Your task to perform on an android device: set the timer Image 0: 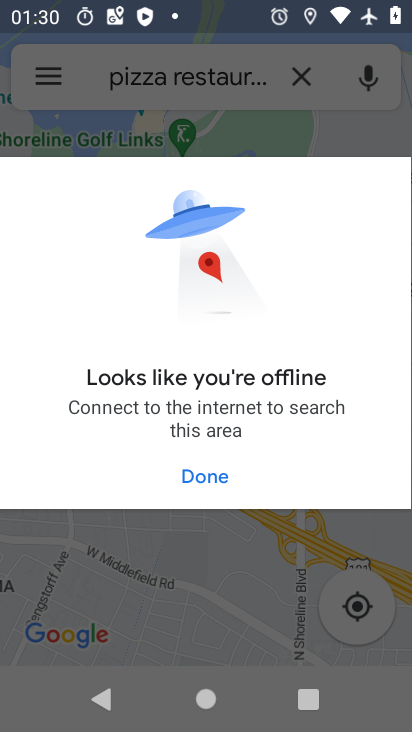
Step 0: press home button
Your task to perform on an android device: set the timer Image 1: 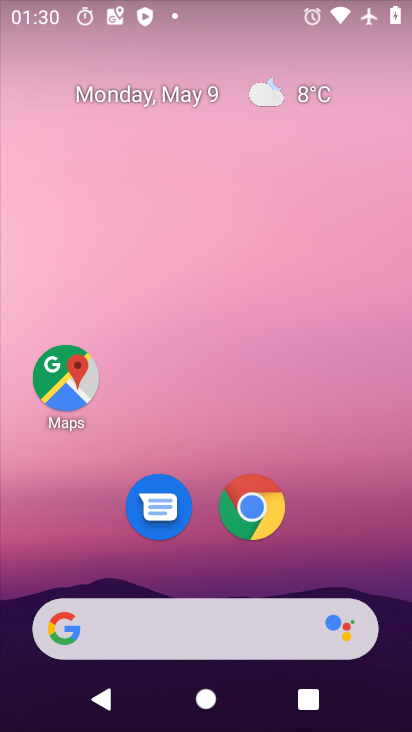
Step 1: drag from (231, 721) to (233, 235)
Your task to perform on an android device: set the timer Image 2: 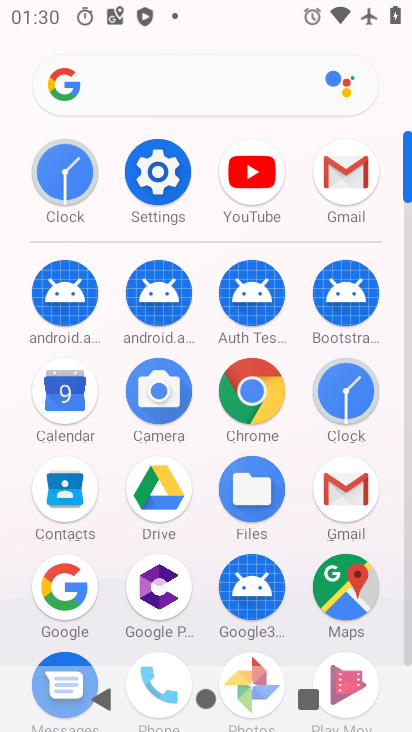
Step 2: click (341, 387)
Your task to perform on an android device: set the timer Image 3: 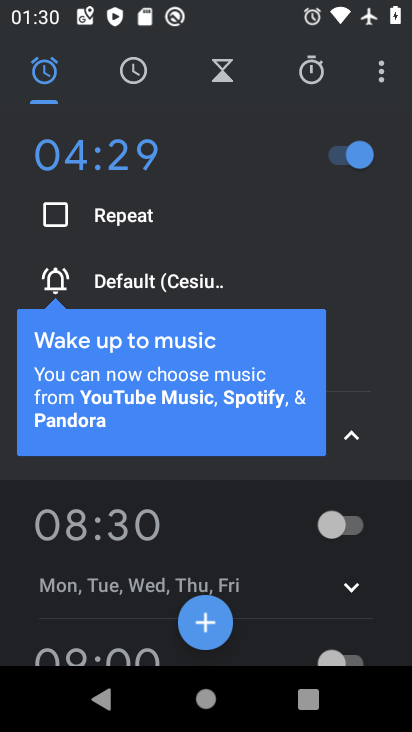
Step 3: click (220, 76)
Your task to perform on an android device: set the timer Image 4: 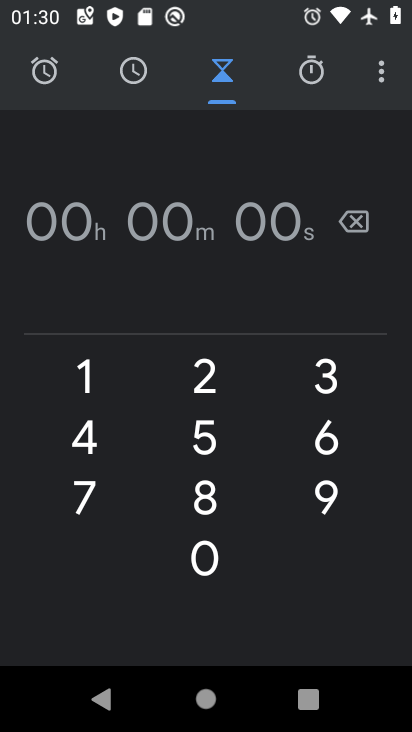
Step 4: click (207, 369)
Your task to perform on an android device: set the timer Image 5: 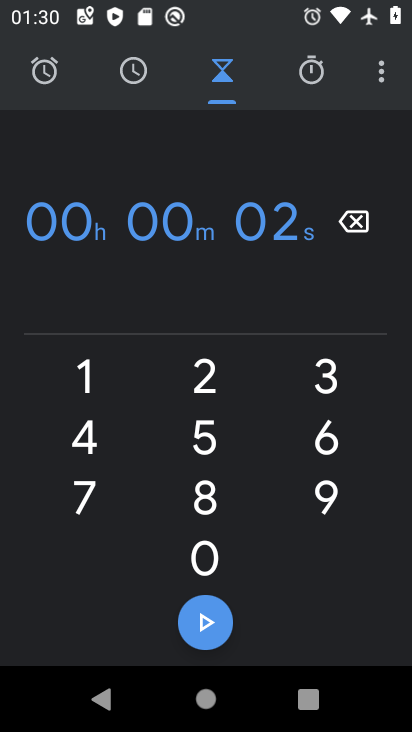
Step 5: click (210, 498)
Your task to perform on an android device: set the timer Image 6: 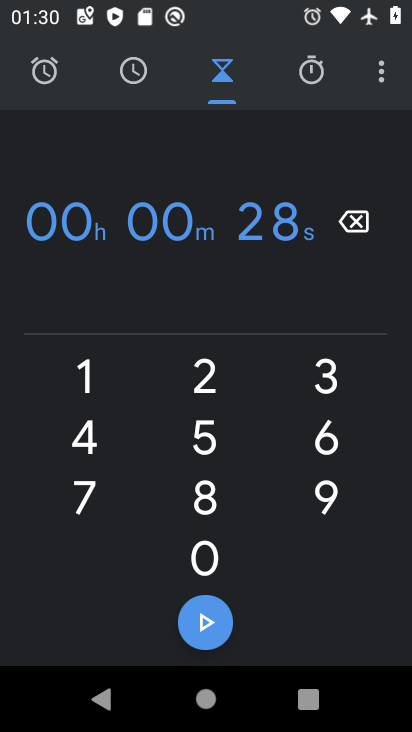
Step 6: click (89, 432)
Your task to perform on an android device: set the timer Image 7: 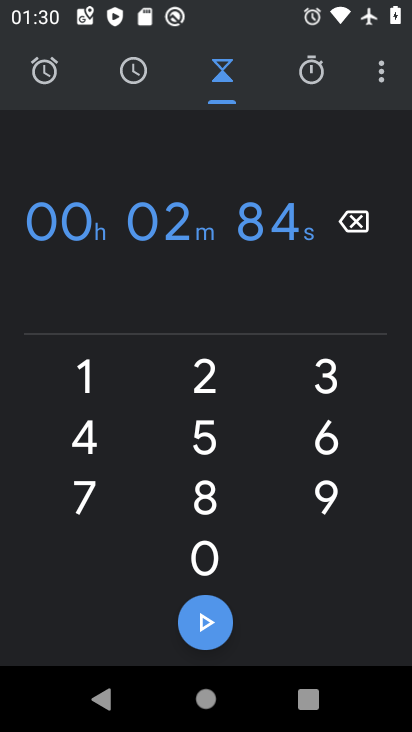
Step 7: click (314, 372)
Your task to perform on an android device: set the timer Image 8: 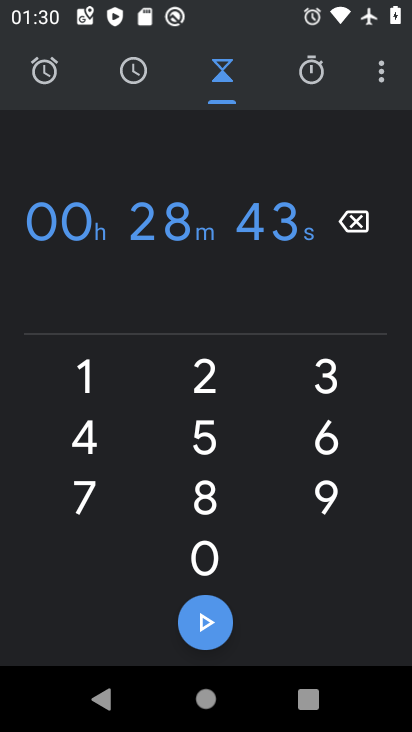
Step 8: click (203, 625)
Your task to perform on an android device: set the timer Image 9: 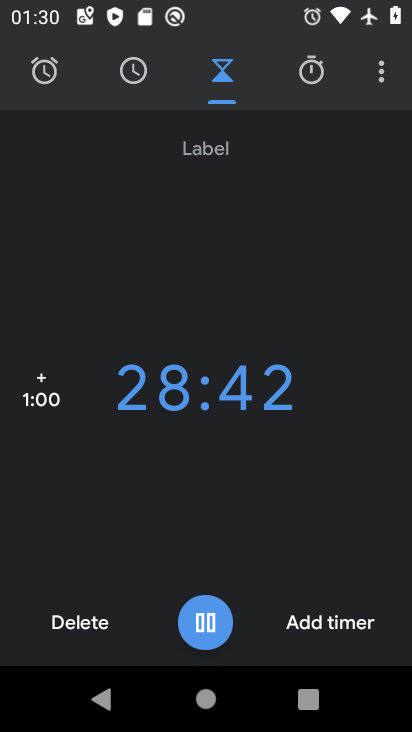
Step 9: task complete